Your task to perform on an android device: change timer sound Image 0: 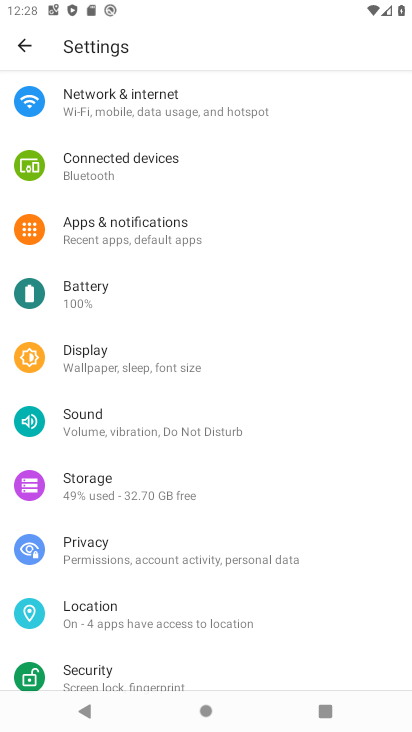
Step 0: press home button
Your task to perform on an android device: change timer sound Image 1: 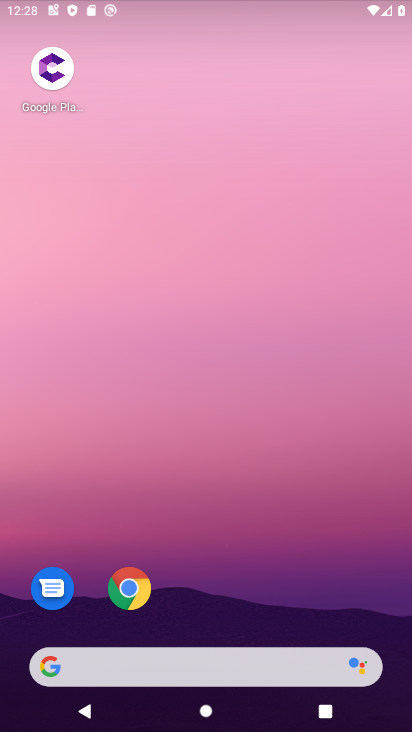
Step 1: drag from (142, 718) to (146, 5)
Your task to perform on an android device: change timer sound Image 2: 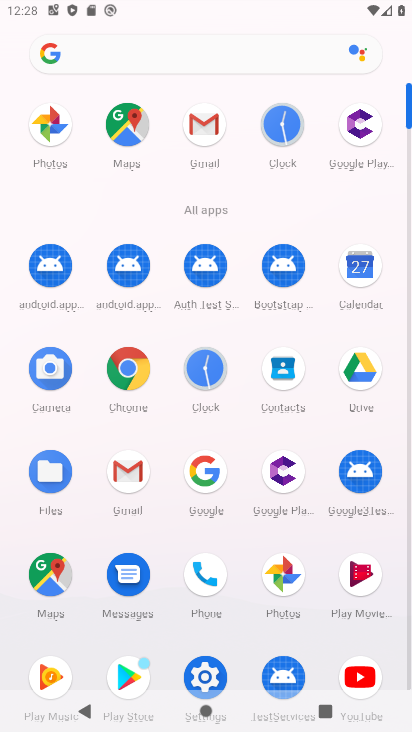
Step 2: click (285, 133)
Your task to perform on an android device: change timer sound Image 3: 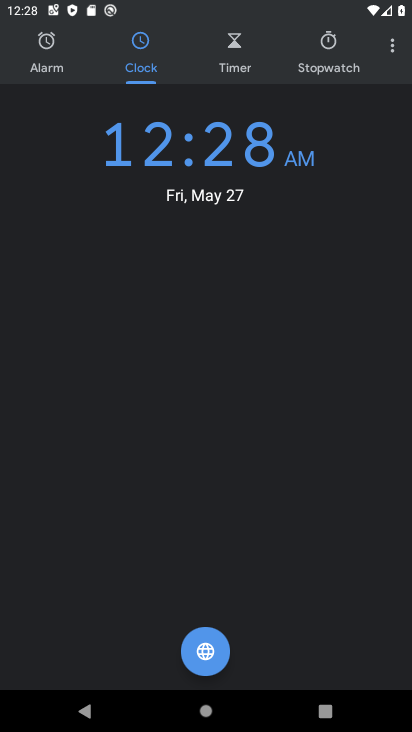
Step 3: click (391, 47)
Your task to perform on an android device: change timer sound Image 4: 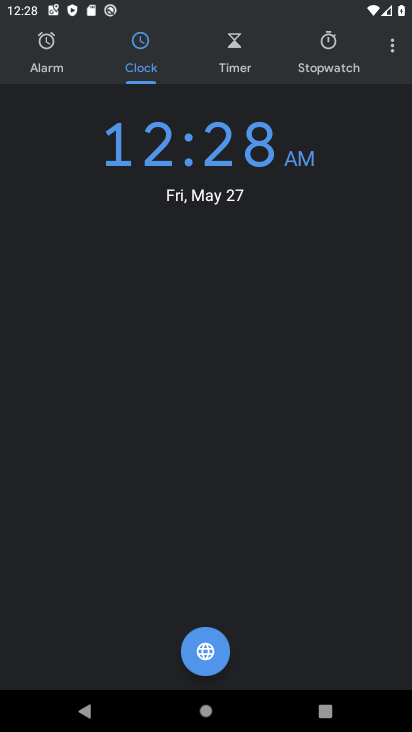
Step 4: click (393, 39)
Your task to perform on an android device: change timer sound Image 5: 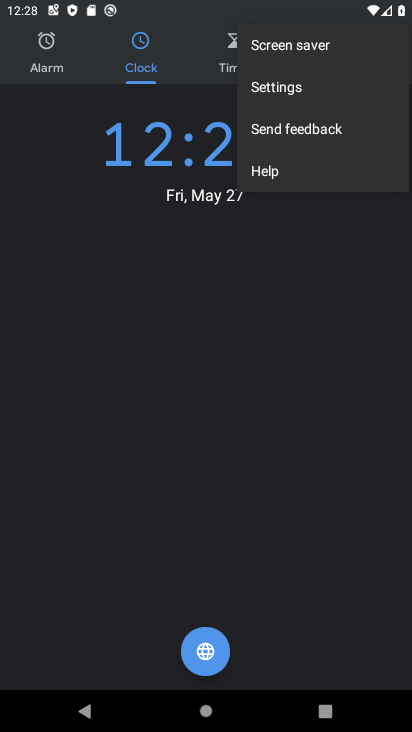
Step 5: click (319, 90)
Your task to perform on an android device: change timer sound Image 6: 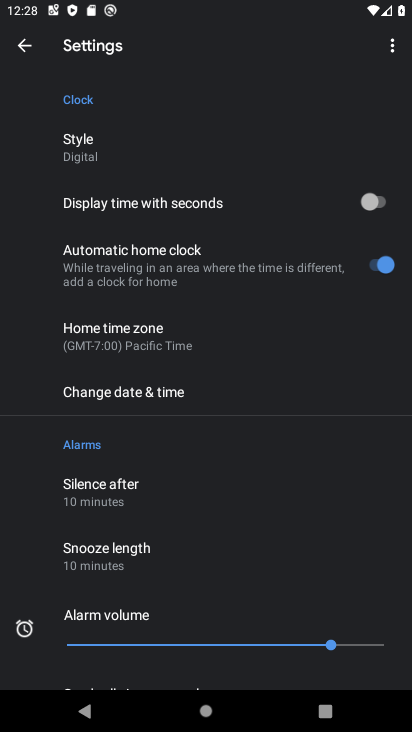
Step 6: drag from (213, 566) to (227, 196)
Your task to perform on an android device: change timer sound Image 7: 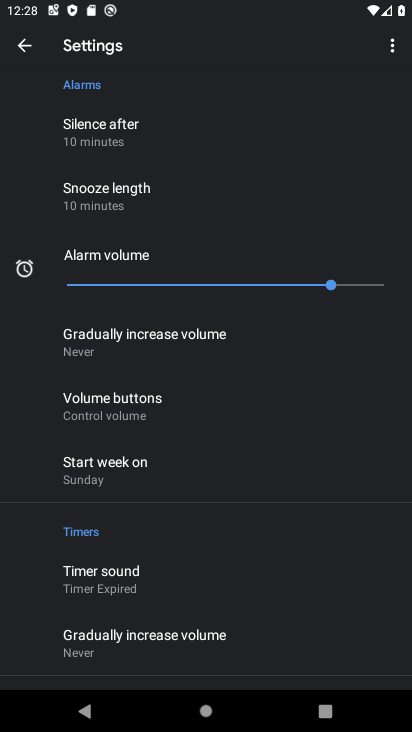
Step 7: click (145, 597)
Your task to perform on an android device: change timer sound Image 8: 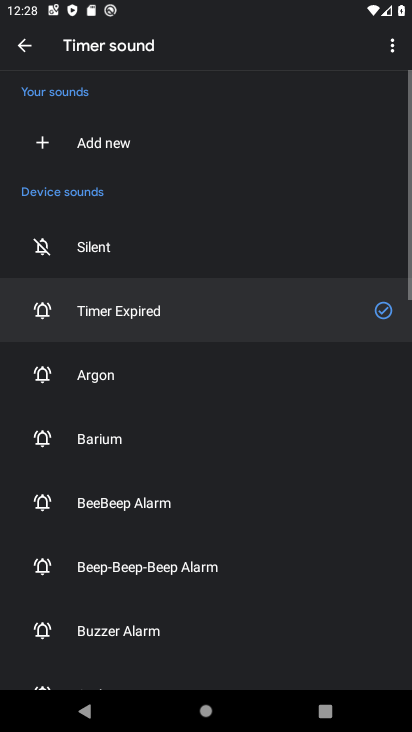
Step 8: click (119, 380)
Your task to perform on an android device: change timer sound Image 9: 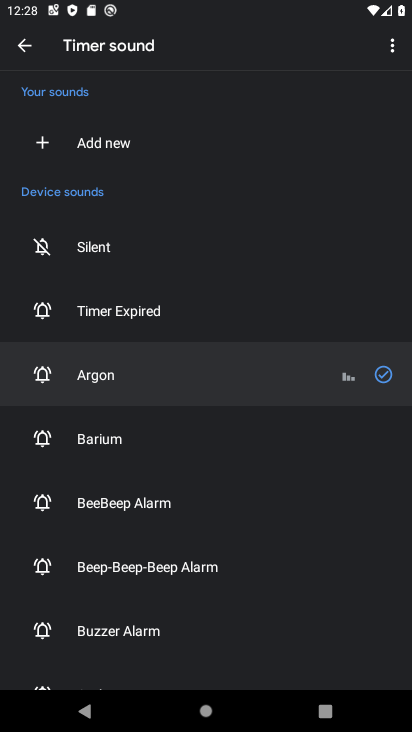
Step 9: click (30, 53)
Your task to perform on an android device: change timer sound Image 10: 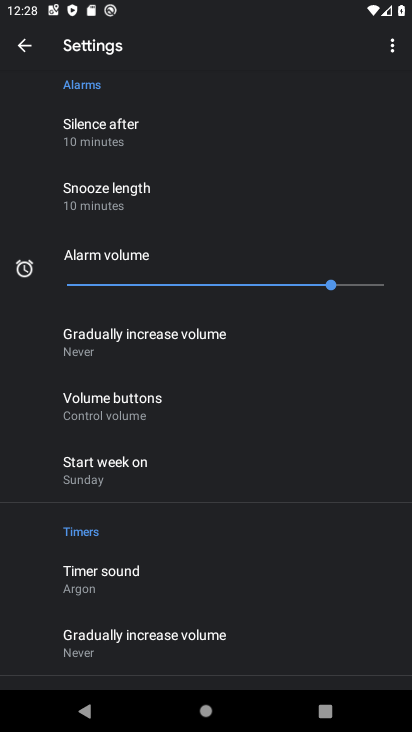
Step 10: task complete